Your task to perform on an android device: turn on priority inbox in the gmail app Image 0: 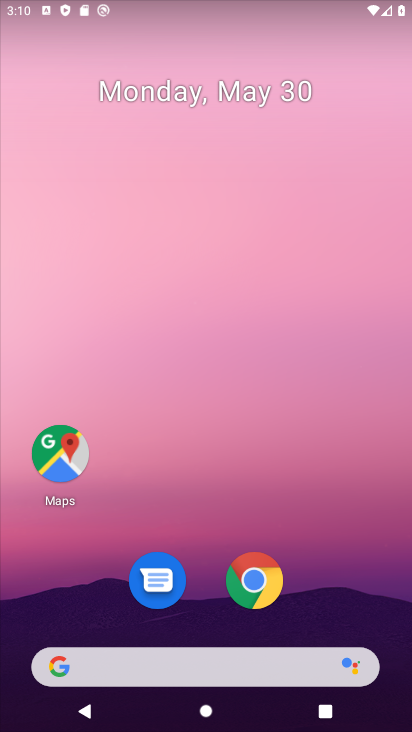
Step 0: drag from (305, 534) to (323, 87)
Your task to perform on an android device: turn on priority inbox in the gmail app Image 1: 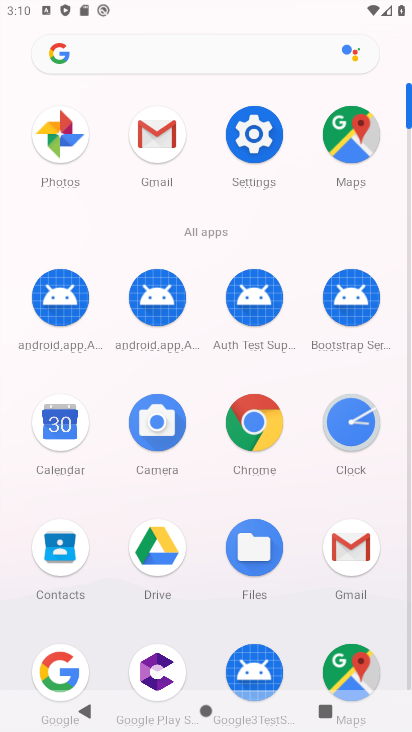
Step 1: click (354, 544)
Your task to perform on an android device: turn on priority inbox in the gmail app Image 2: 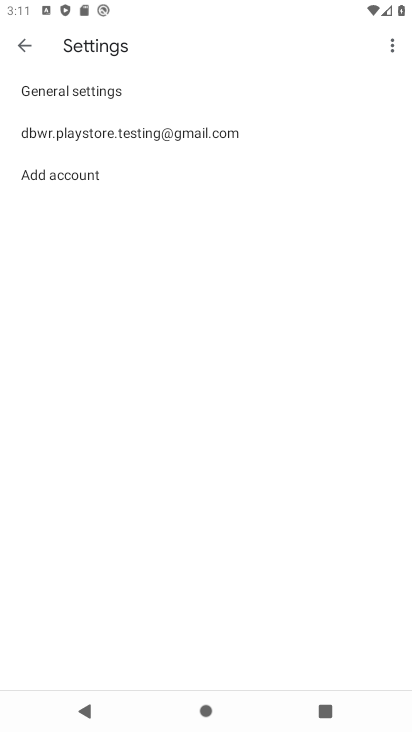
Step 2: click (121, 135)
Your task to perform on an android device: turn on priority inbox in the gmail app Image 3: 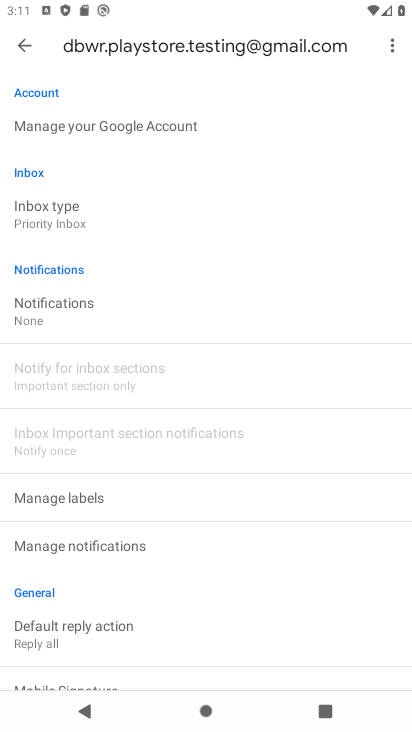
Step 3: task complete